Your task to perform on an android device: add a label to a message in the gmail app Image 0: 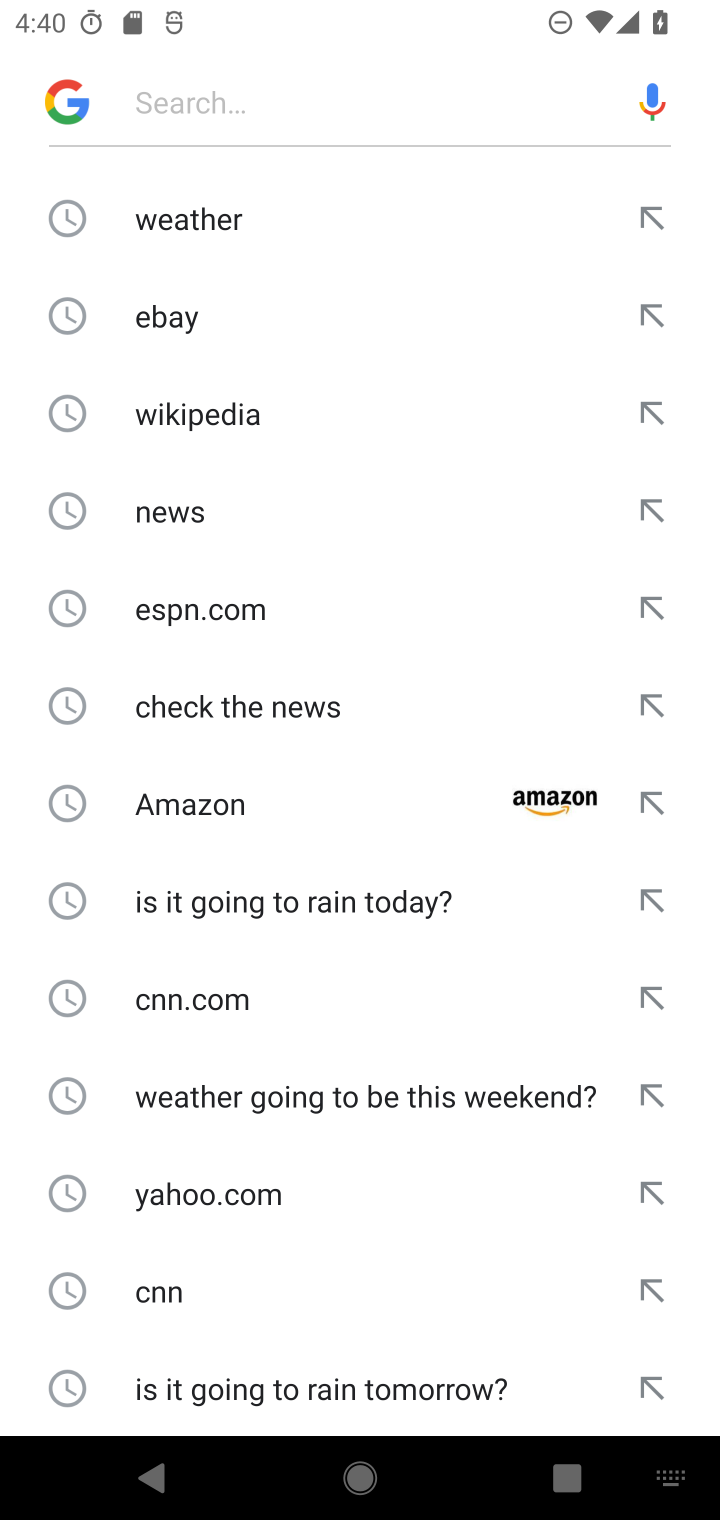
Step 0: press home button
Your task to perform on an android device: add a label to a message in the gmail app Image 1: 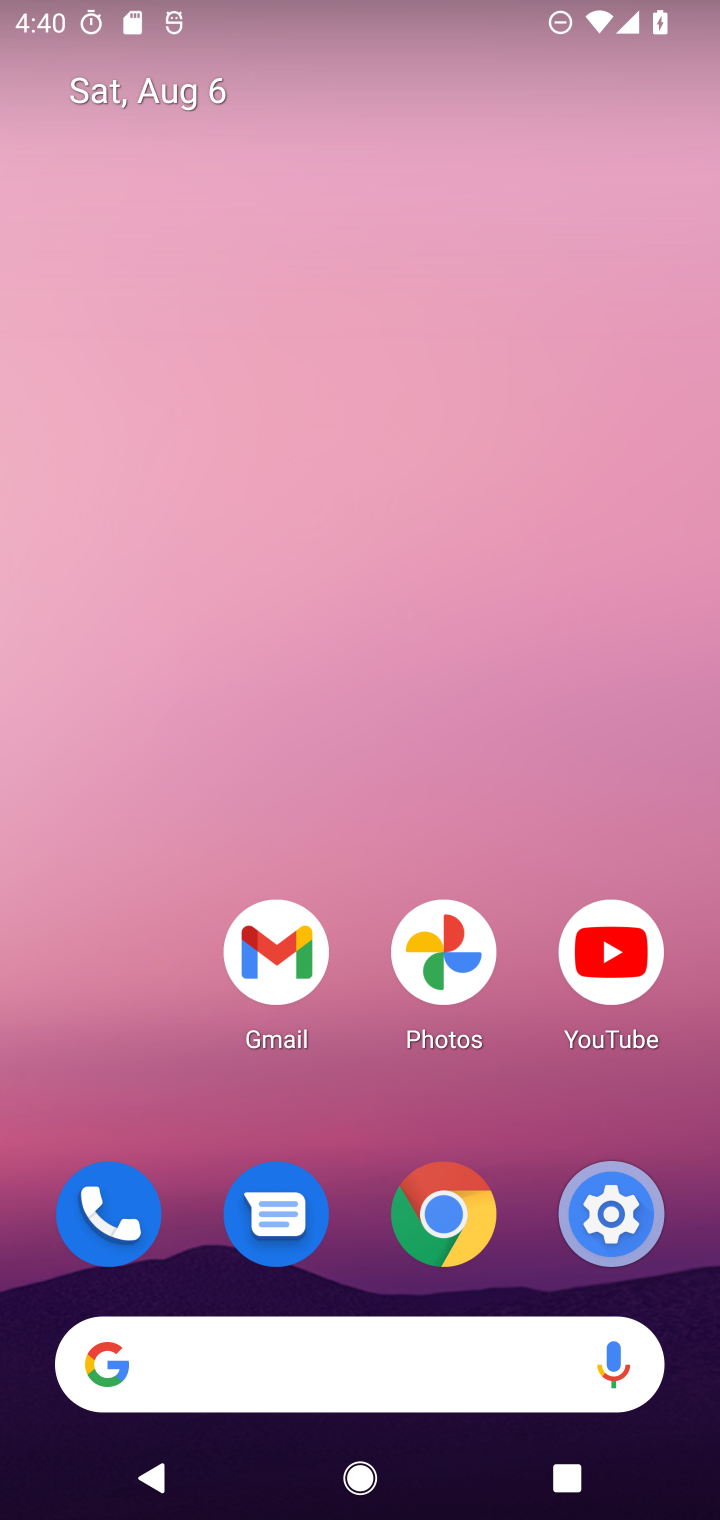
Step 1: click (270, 943)
Your task to perform on an android device: add a label to a message in the gmail app Image 2: 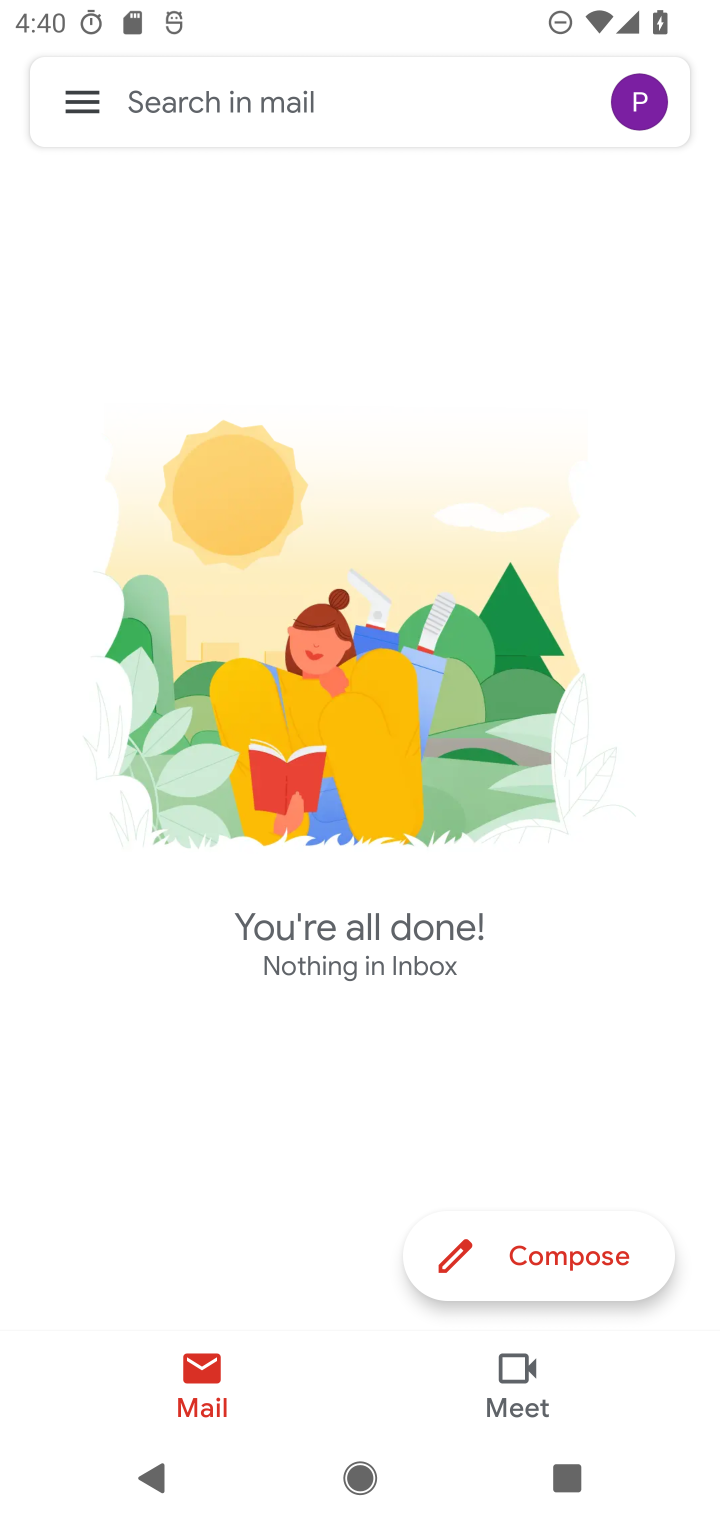
Step 2: click (81, 96)
Your task to perform on an android device: add a label to a message in the gmail app Image 3: 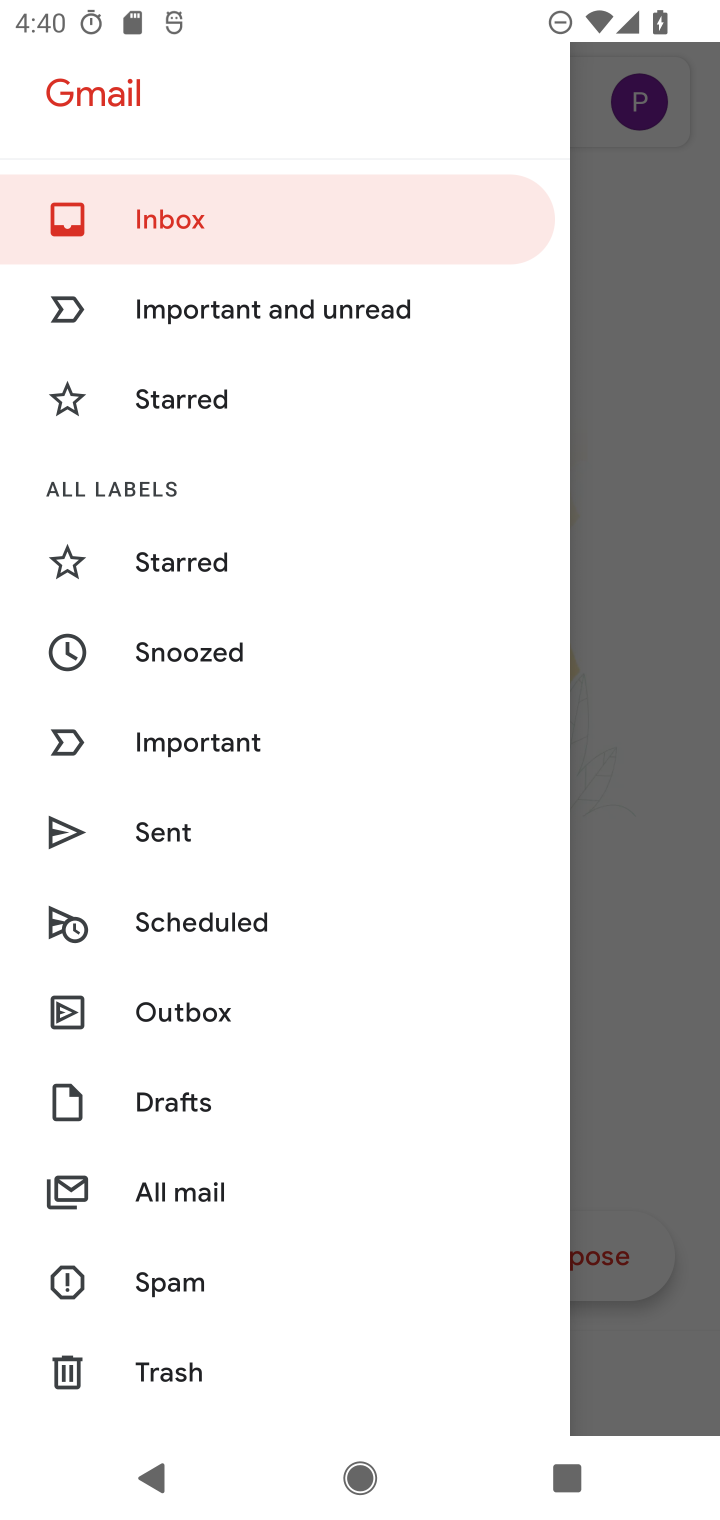
Step 3: click (185, 1194)
Your task to perform on an android device: add a label to a message in the gmail app Image 4: 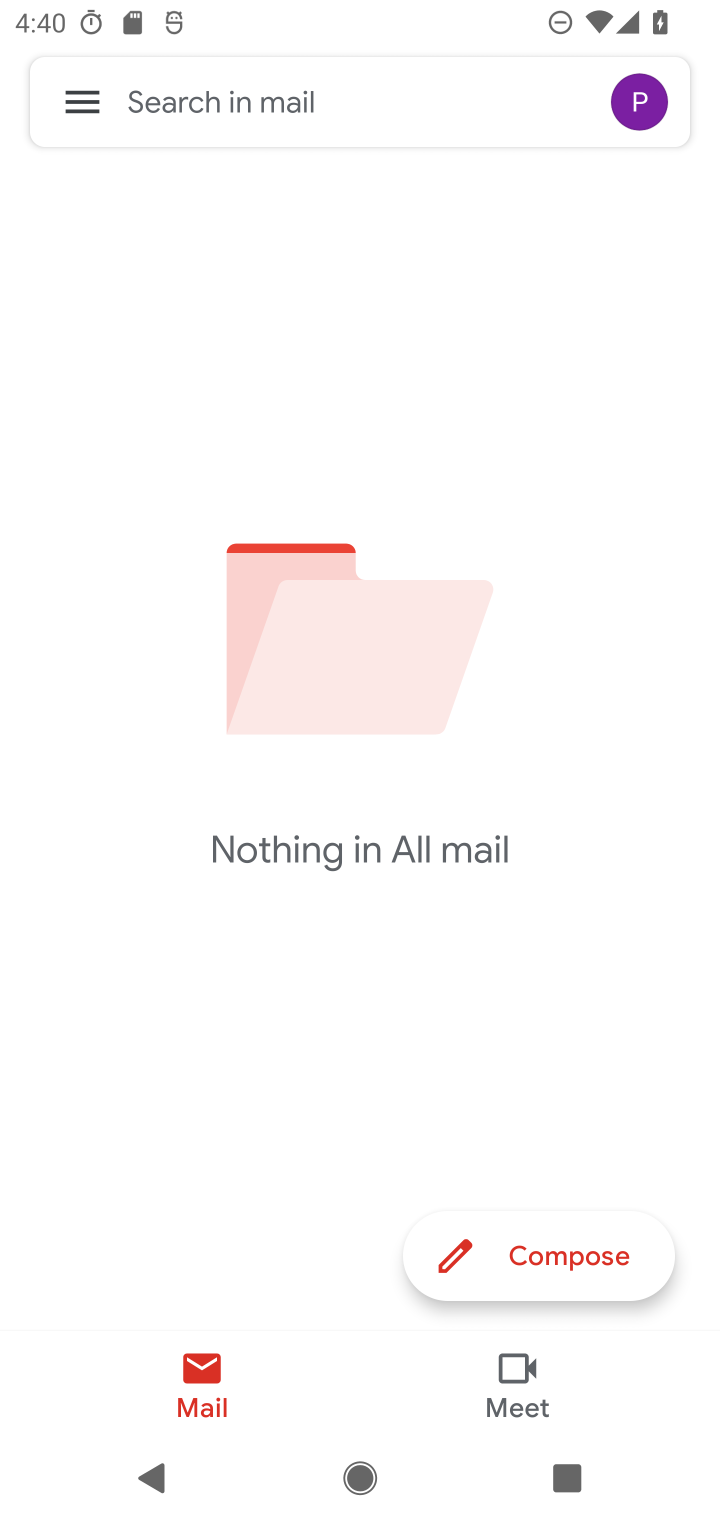
Step 4: task complete